Your task to perform on an android device: change keyboard looks Image 0: 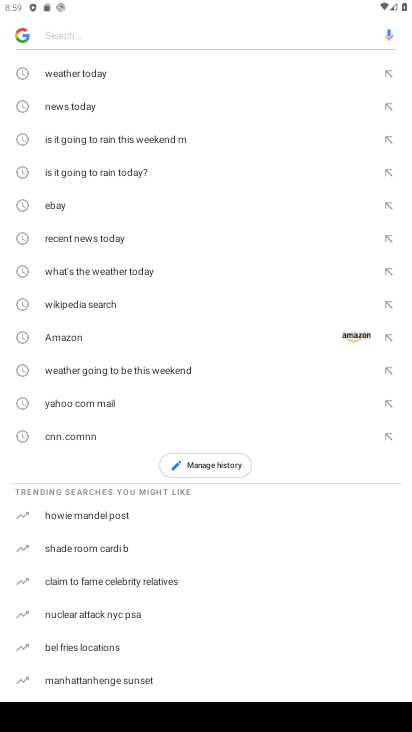
Step 0: press home button
Your task to perform on an android device: change keyboard looks Image 1: 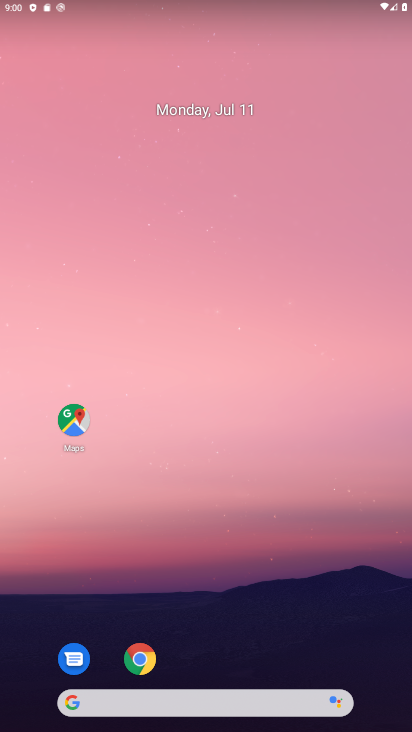
Step 1: drag from (359, 623) to (351, 155)
Your task to perform on an android device: change keyboard looks Image 2: 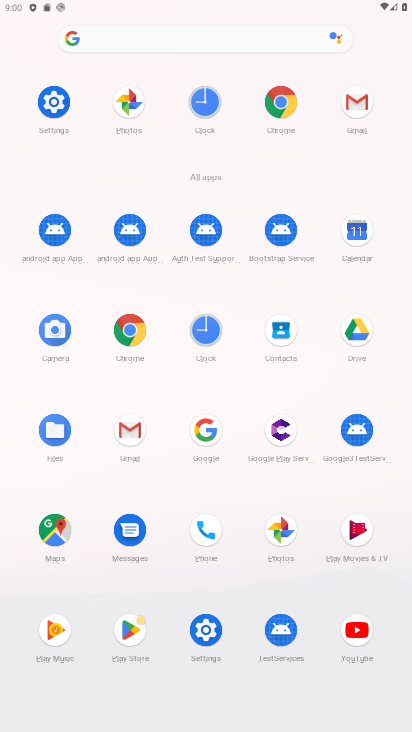
Step 2: click (206, 635)
Your task to perform on an android device: change keyboard looks Image 3: 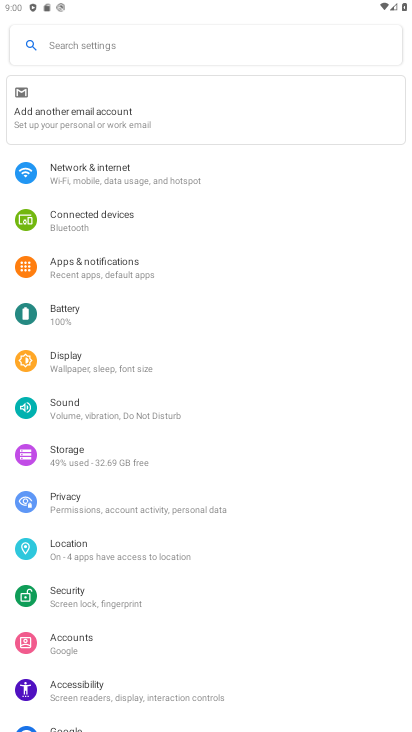
Step 3: drag from (287, 527) to (296, 411)
Your task to perform on an android device: change keyboard looks Image 4: 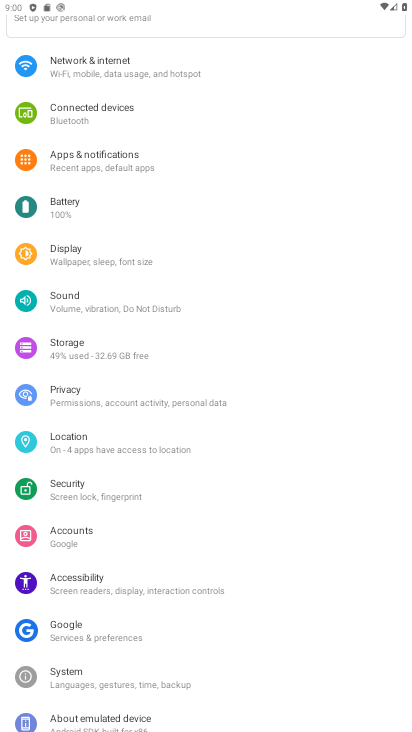
Step 4: drag from (306, 537) to (297, 387)
Your task to perform on an android device: change keyboard looks Image 5: 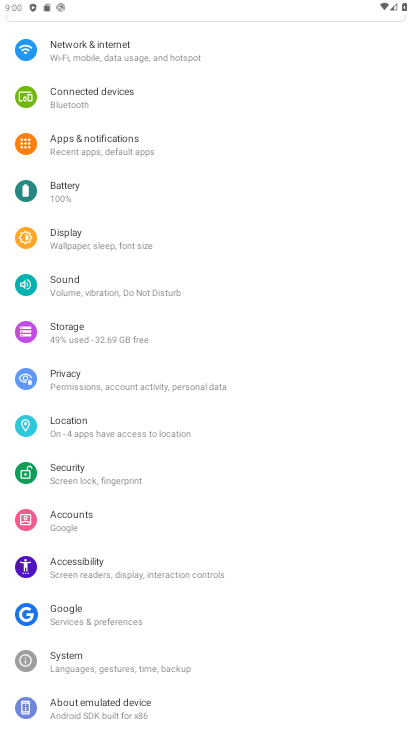
Step 5: click (230, 668)
Your task to perform on an android device: change keyboard looks Image 6: 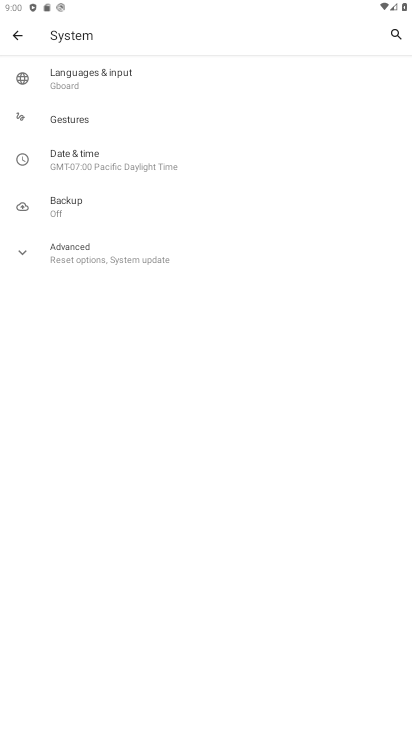
Step 6: click (91, 84)
Your task to perform on an android device: change keyboard looks Image 7: 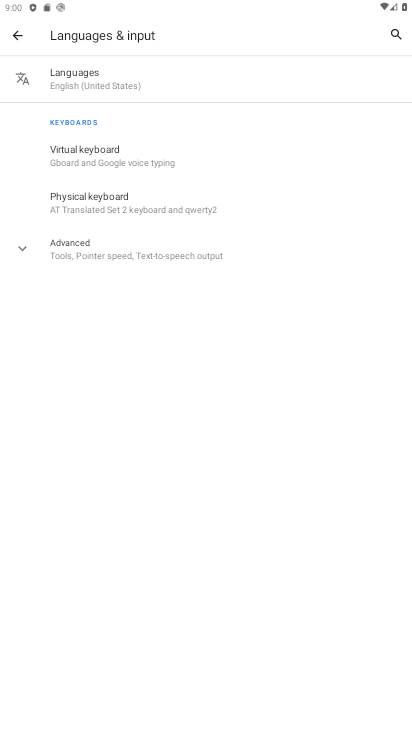
Step 7: click (99, 155)
Your task to perform on an android device: change keyboard looks Image 8: 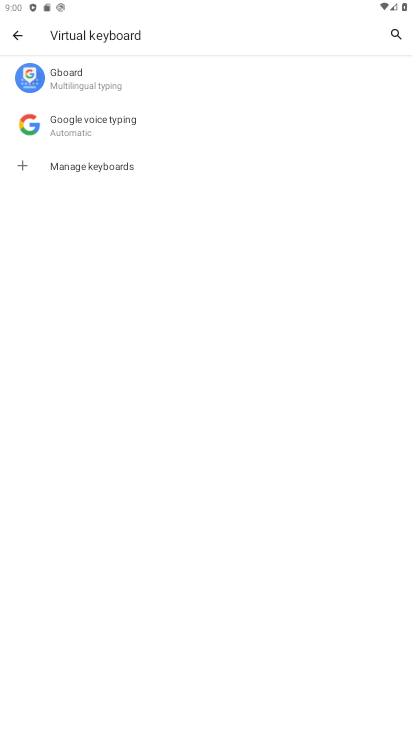
Step 8: click (74, 83)
Your task to perform on an android device: change keyboard looks Image 9: 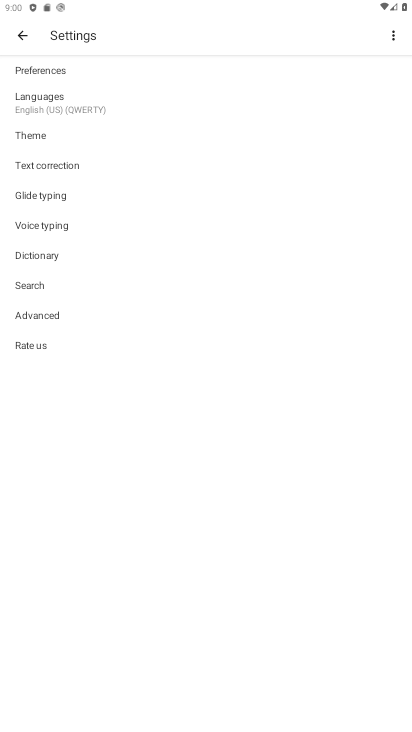
Step 9: click (68, 138)
Your task to perform on an android device: change keyboard looks Image 10: 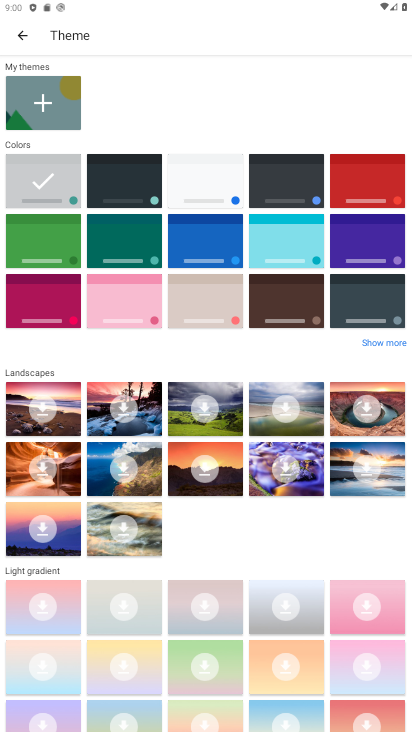
Step 10: click (117, 286)
Your task to perform on an android device: change keyboard looks Image 11: 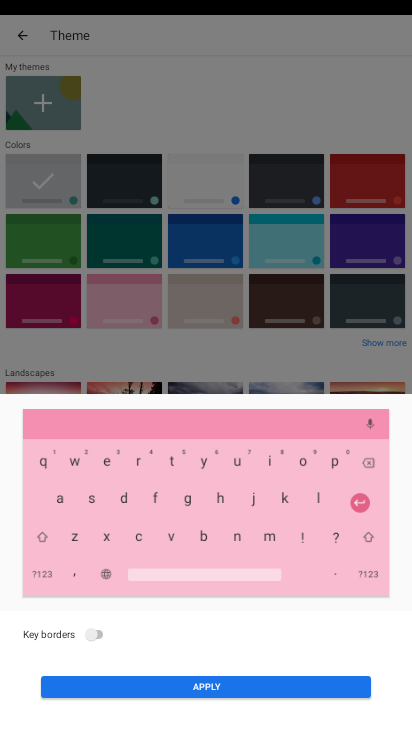
Step 11: click (192, 695)
Your task to perform on an android device: change keyboard looks Image 12: 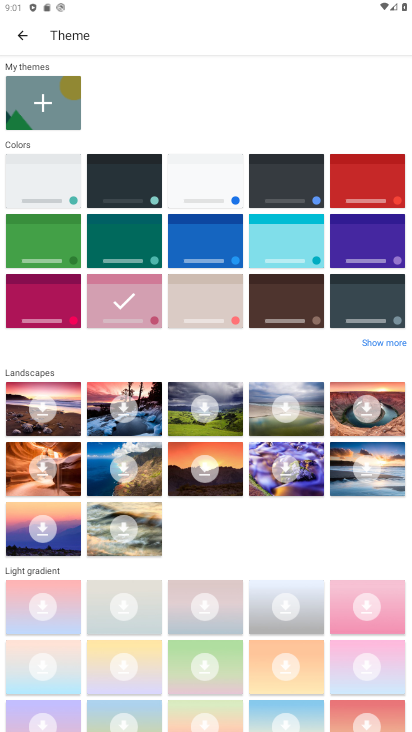
Step 12: task complete